Your task to perform on an android device: How big is a dinosaur? Image 0: 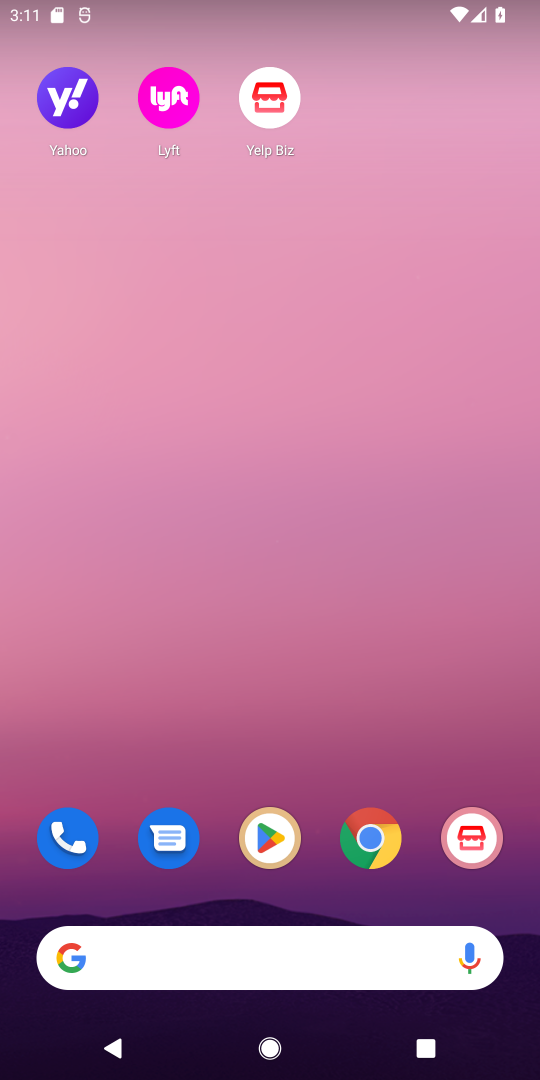
Step 0: click (379, 833)
Your task to perform on an android device: How big is a dinosaur? Image 1: 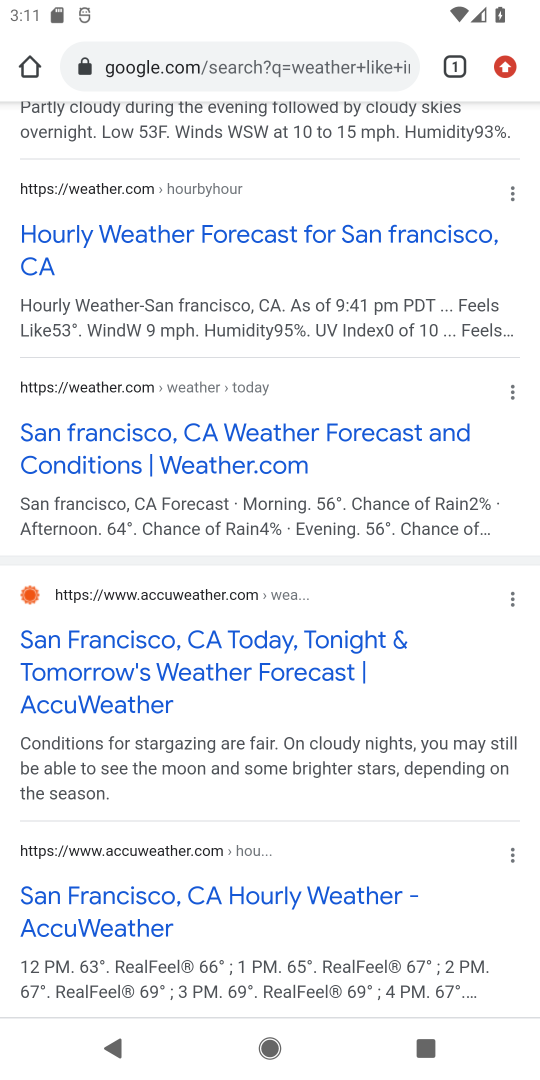
Step 1: click (168, 73)
Your task to perform on an android device: How big is a dinosaur? Image 2: 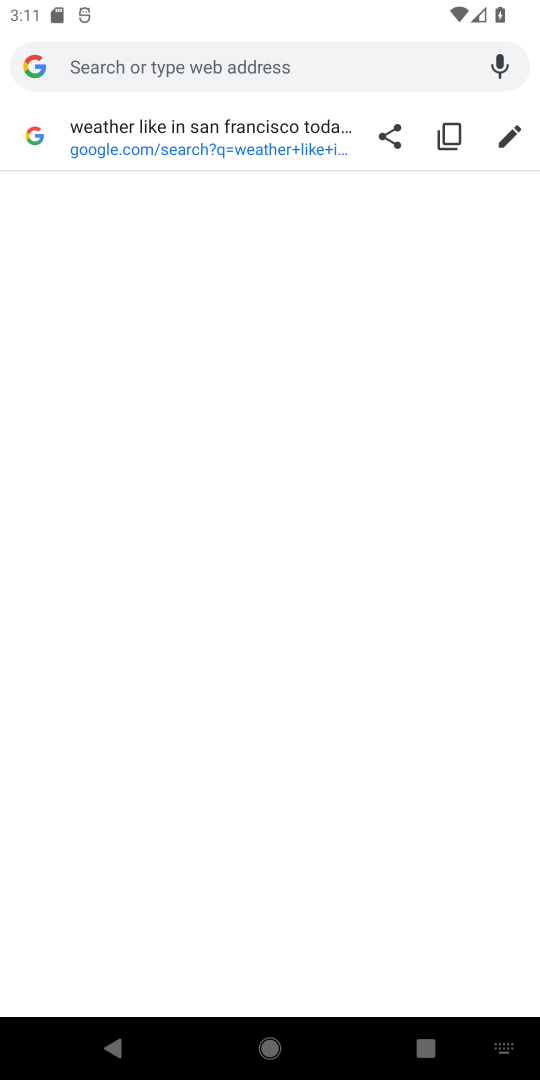
Step 2: type "how big is dinosaur"
Your task to perform on an android device: How big is a dinosaur? Image 3: 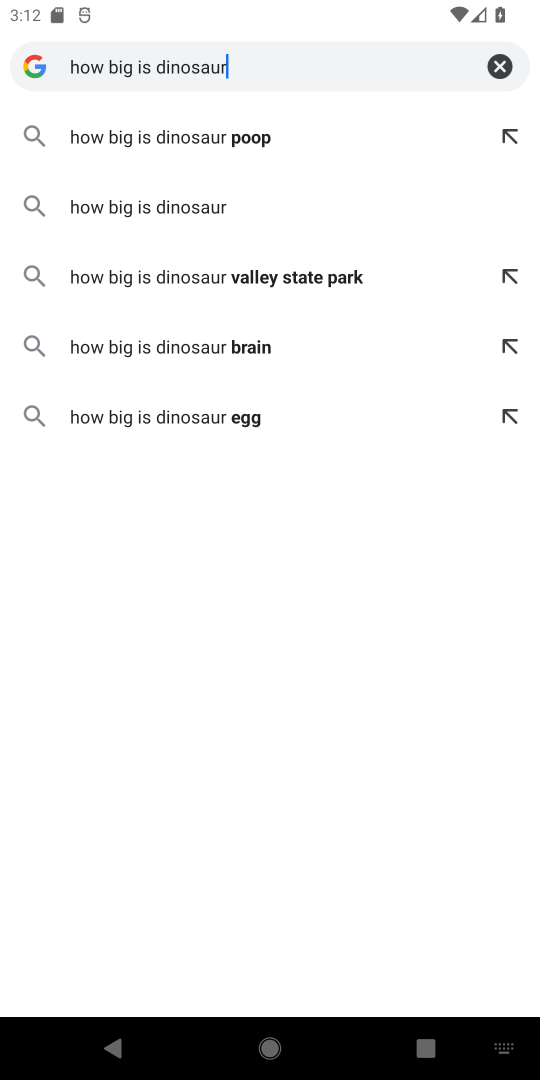
Step 3: click (185, 204)
Your task to perform on an android device: How big is a dinosaur? Image 4: 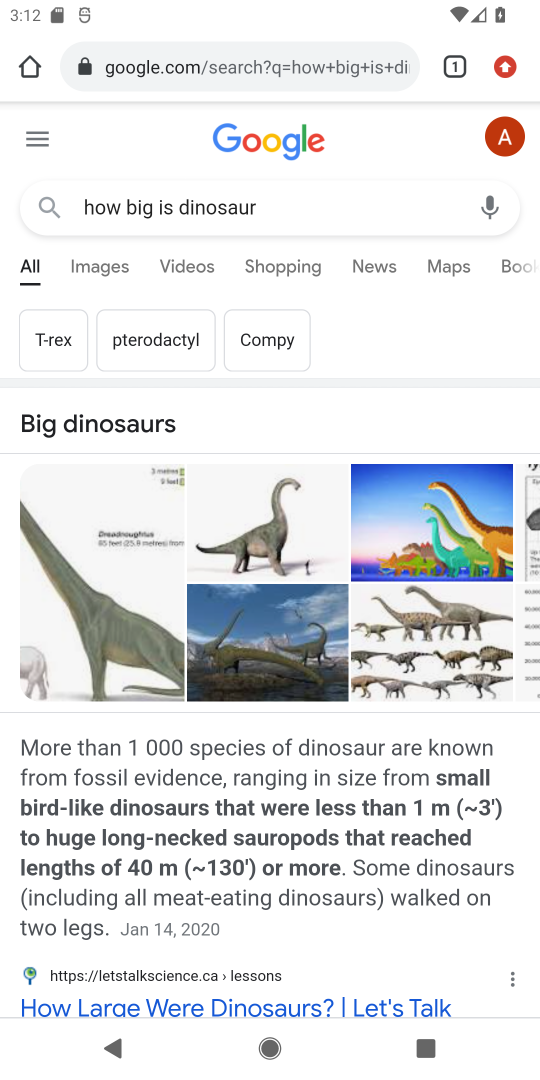
Step 4: drag from (392, 825) to (437, 506)
Your task to perform on an android device: How big is a dinosaur? Image 5: 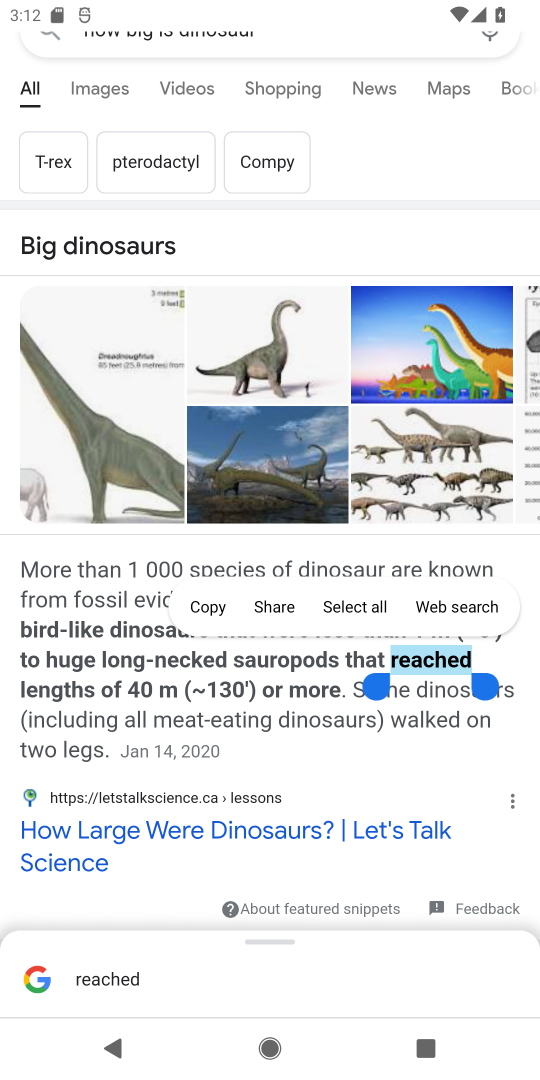
Step 5: click (100, 374)
Your task to perform on an android device: How big is a dinosaur? Image 6: 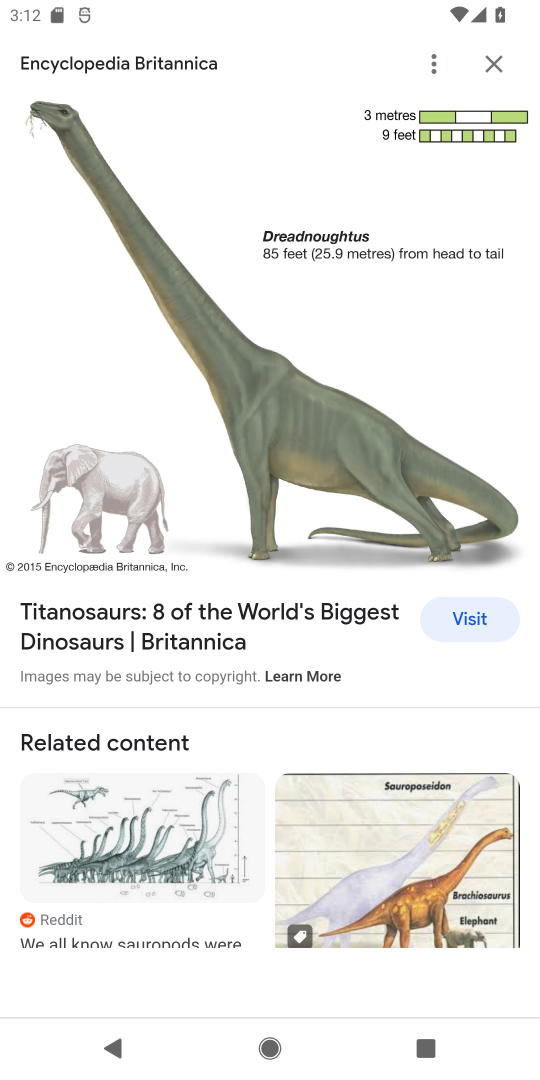
Step 6: drag from (300, 573) to (345, 237)
Your task to perform on an android device: How big is a dinosaur? Image 7: 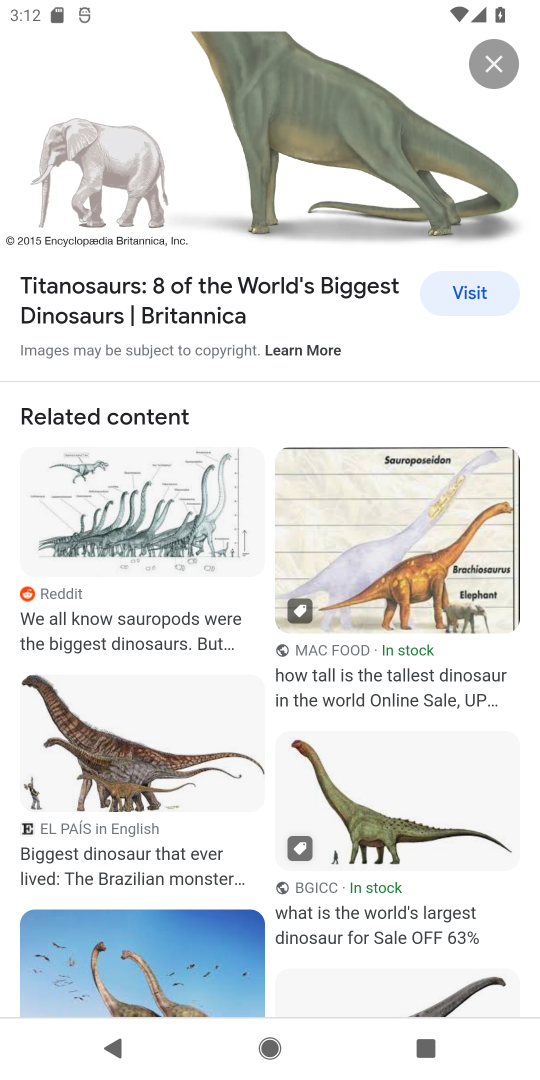
Step 7: drag from (343, 524) to (343, 436)
Your task to perform on an android device: How big is a dinosaur? Image 8: 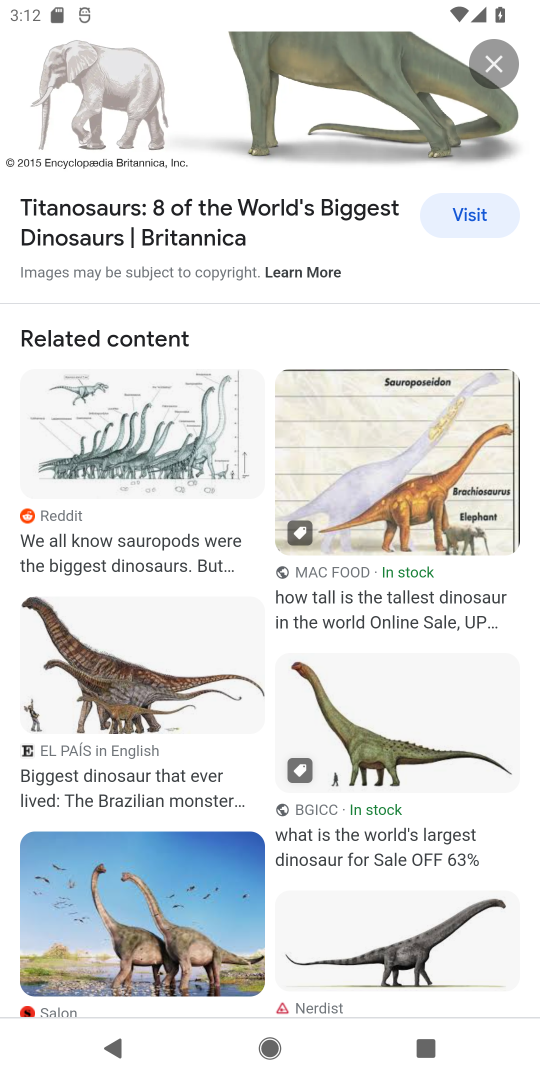
Step 8: drag from (345, 896) to (372, 415)
Your task to perform on an android device: How big is a dinosaur? Image 9: 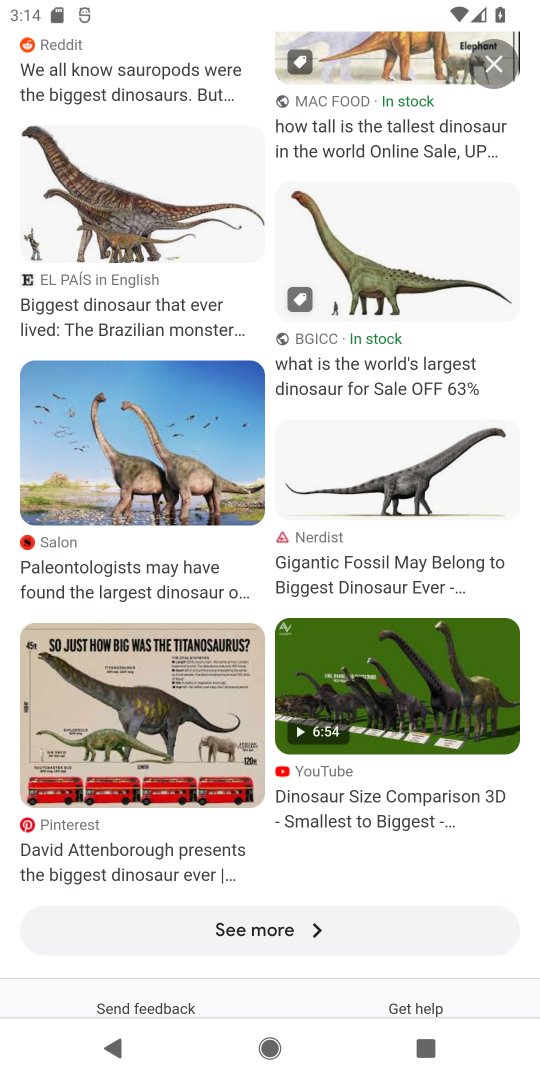
Step 9: click (263, 286)
Your task to perform on an android device: How big is a dinosaur? Image 10: 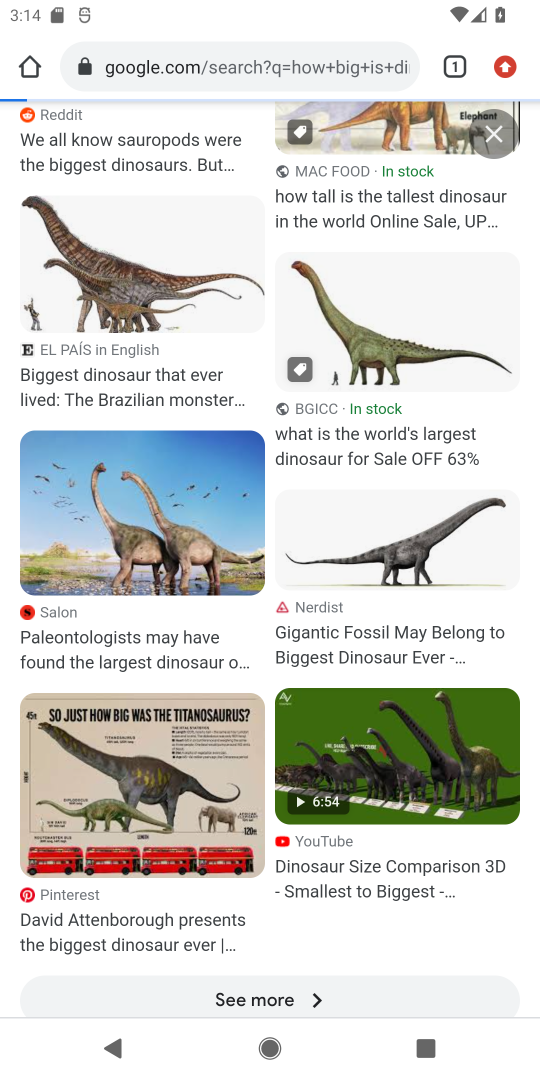
Step 10: drag from (250, 468) to (259, 196)
Your task to perform on an android device: How big is a dinosaur? Image 11: 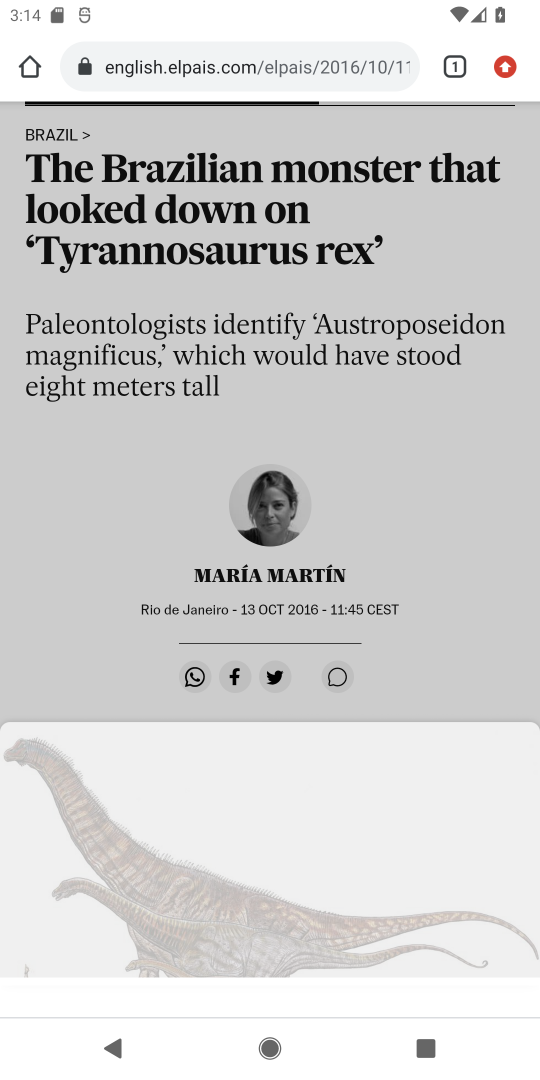
Step 11: drag from (412, 625) to (439, 249)
Your task to perform on an android device: How big is a dinosaur? Image 12: 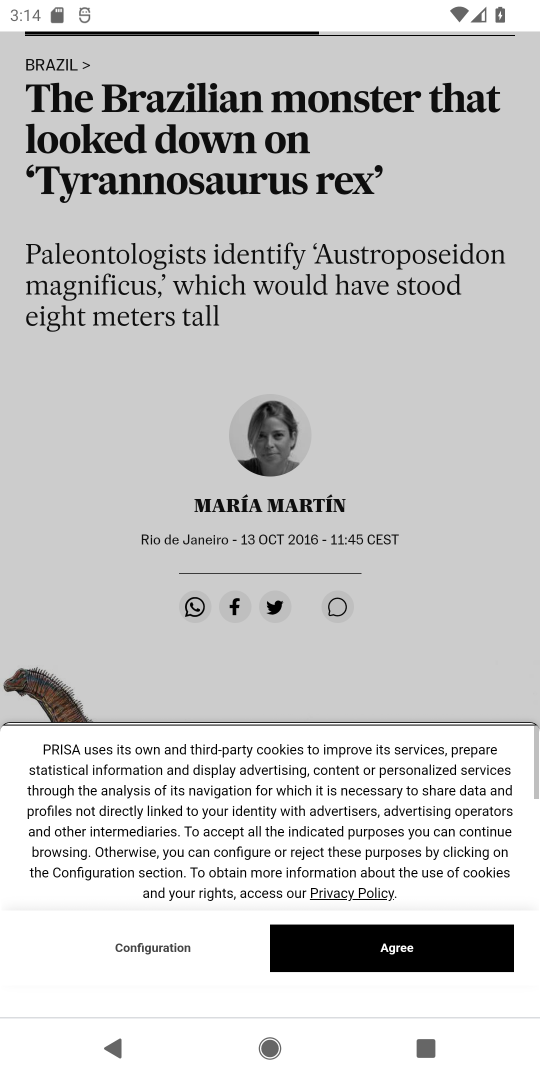
Step 12: click (142, 943)
Your task to perform on an android device: How big is a dinosaur? Image 13: 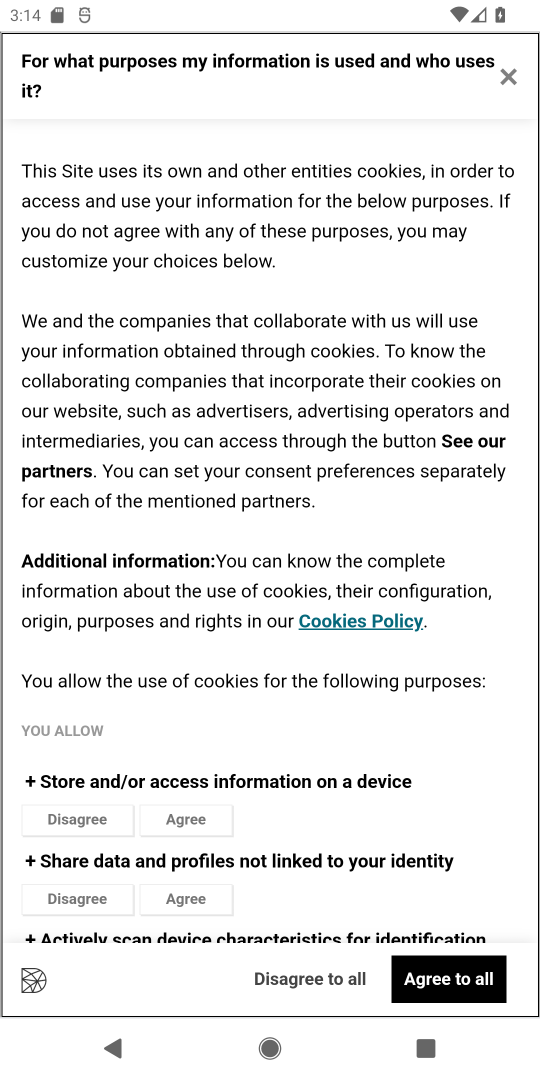
Step 13: click (506, 77)
Your task to perform on an android device: How big is a dinosaur? Image 14: 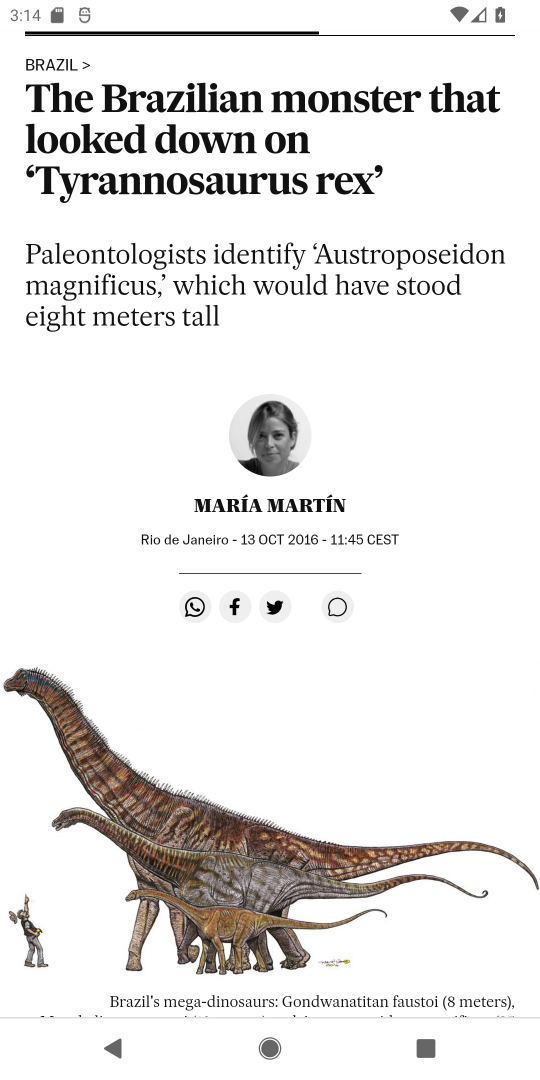
Step 14: task complete